Your task to perform on an android device: Open Android settings Image 0: 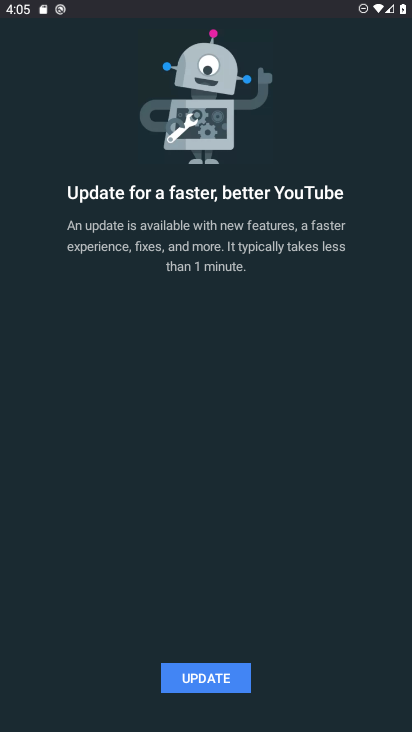
Step 0: press home button
Your task to perform on an android device: Open Android settings Image 1: 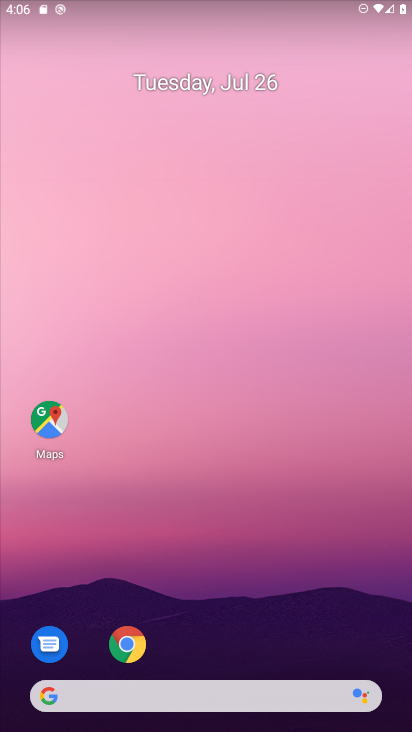
Step 1: drag from (382, 656) to (318, 188)
Your task to perform on an android device: Open Android settings Image 2: 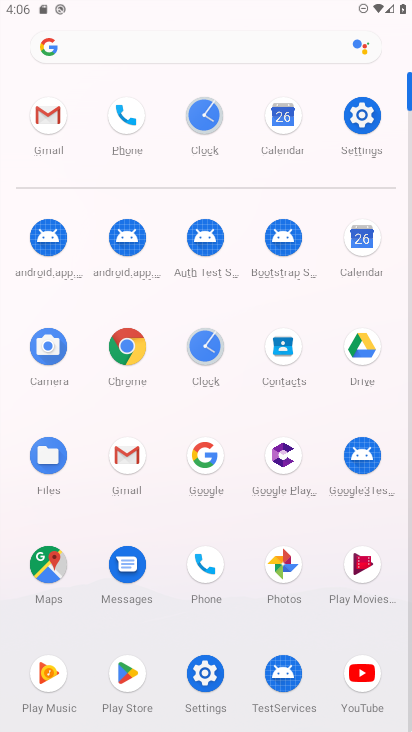
Step 2: click (206, 672)
Your task to perform on an android device: Open Android settings Image 3: 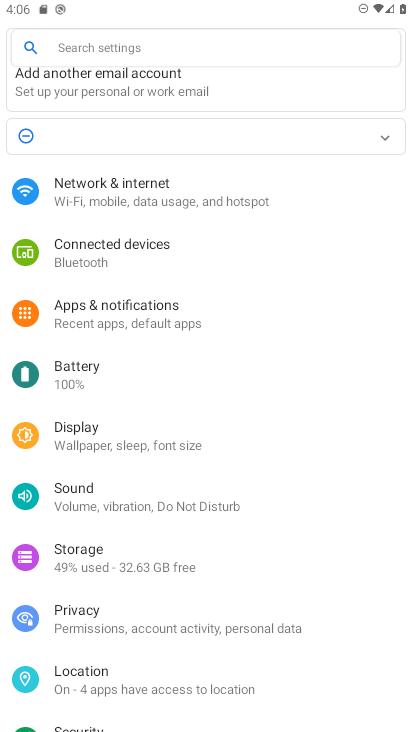
Step 3: drag from (284, 696) to (287, 247)
Your task to perform on an android device: Open Android settings Image 4: 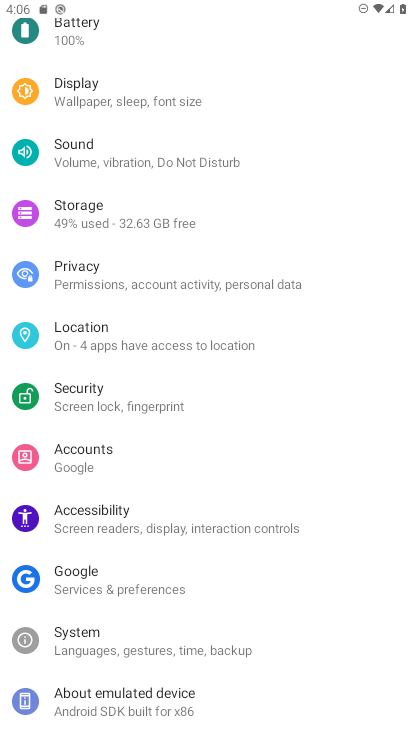
Step 4: click (111, 692)
Your task to perform on an android device: Open Android settings Image 5: 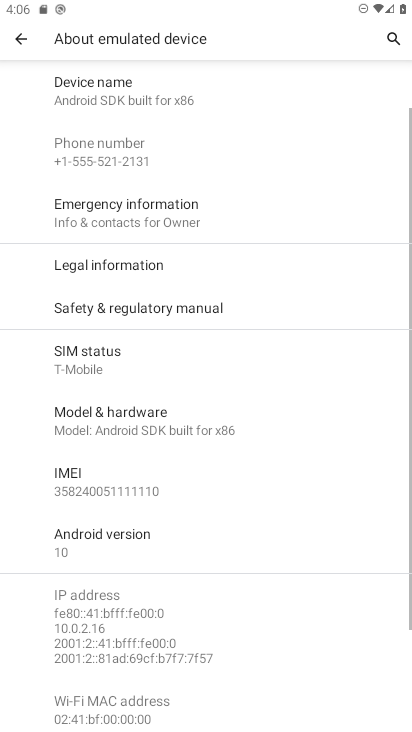
Step 5: task complete